Your task to perform on an android device: uninstall "Contacts" Image 0: 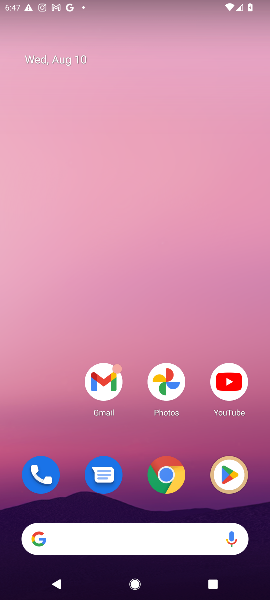
Step 0: drag from (135, 520) to (128, 167)
Your task to perform on an android device: uninstall "Contacts" Image 1: 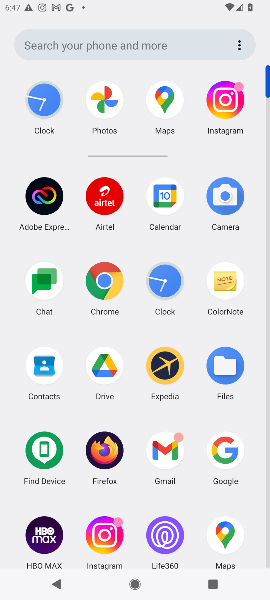
Step 1: task complete